Your task to perform on an android device: Open Reddit.com Image 0: 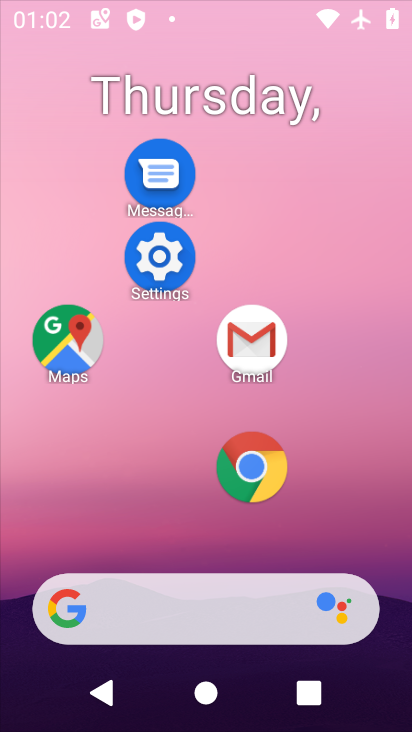
Step 0: press home button
Your task to perform on an android device: Open Reddit.com Image 1: 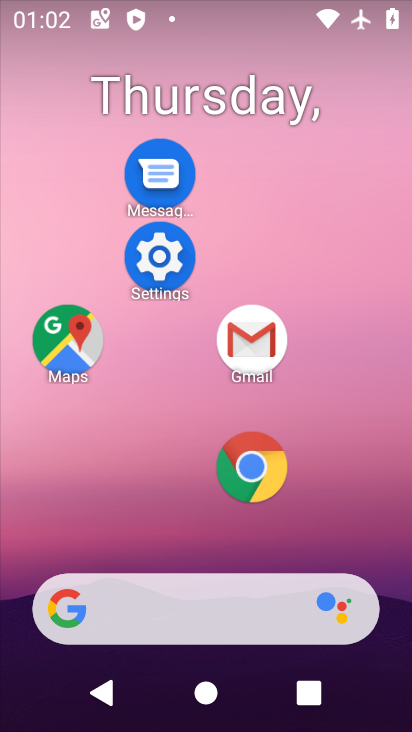
Step 1: drag from (195, 563) to (221, 168)
Your task to perform on an android device: Open Reddit.com Image 2: 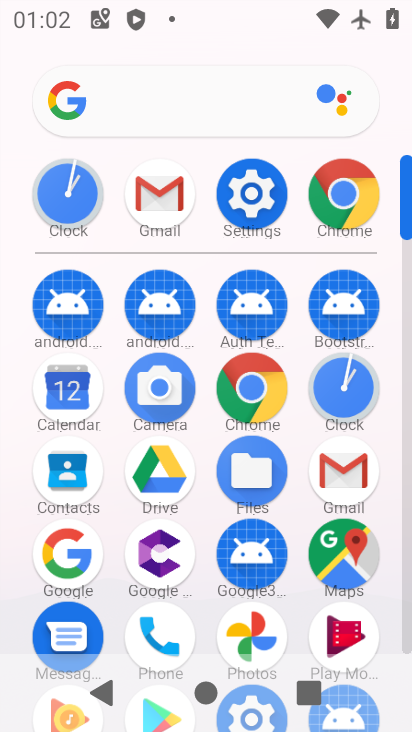
Step 2: click (200, 108)
Your task to perform on an android device: Open Reddit.com Image 3: 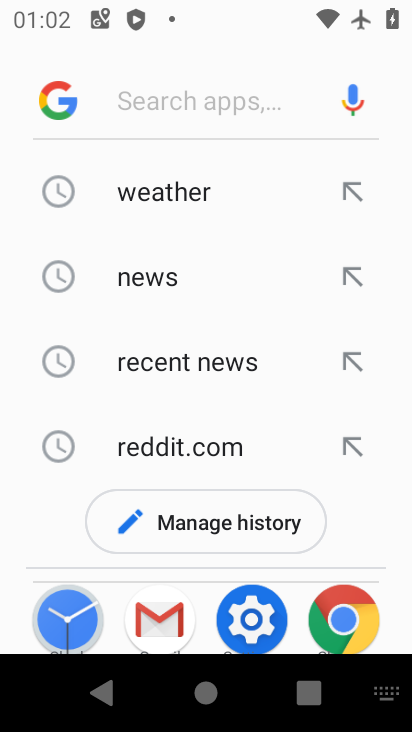
Step 3: click (204, 448)
Your task to perform on an android device: Open Reddit.com Image 4: 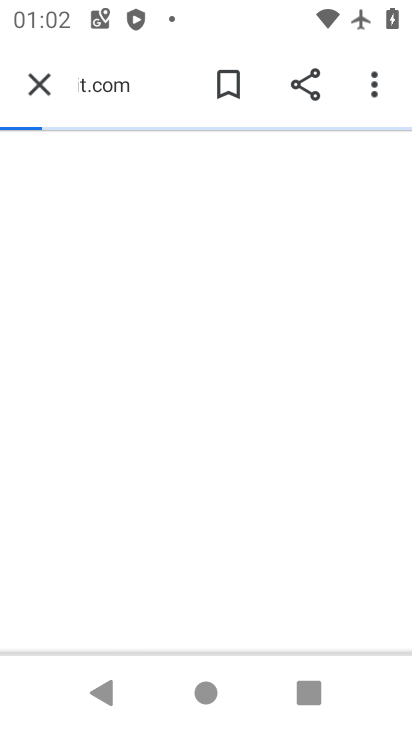
Step 4: task complete